Your task to perform on an android device: open a bookmark in the chrome app Image 0: 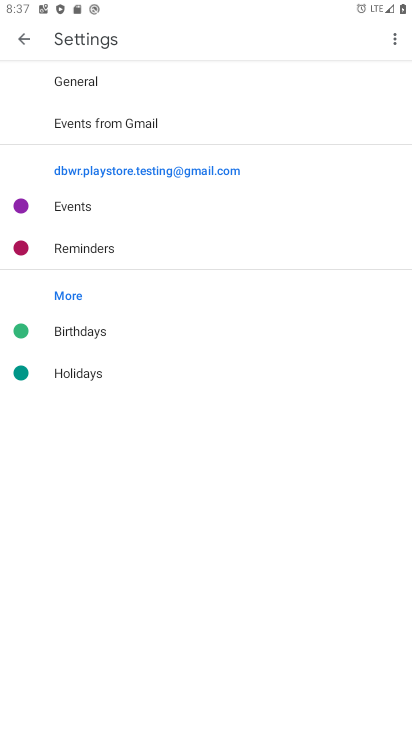
Step 0: press home button
Your task to perform on an android device: open a bookmark in the chrome app Image 1: 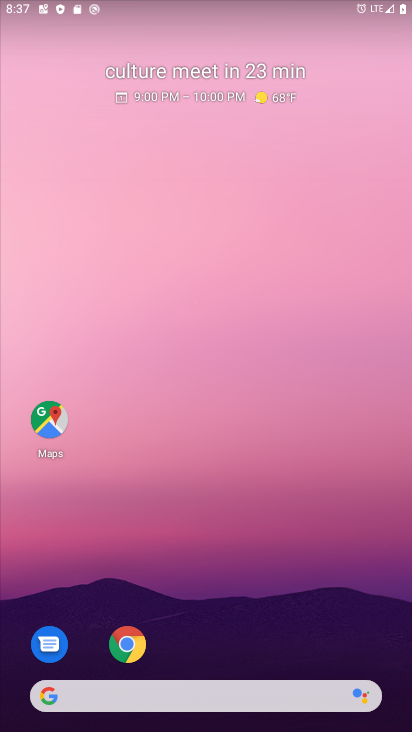
Step 1: drag from (213, 711) to (216, 275)
Your task to perform on an android device: open a bookmark in the chrome app Image 2: 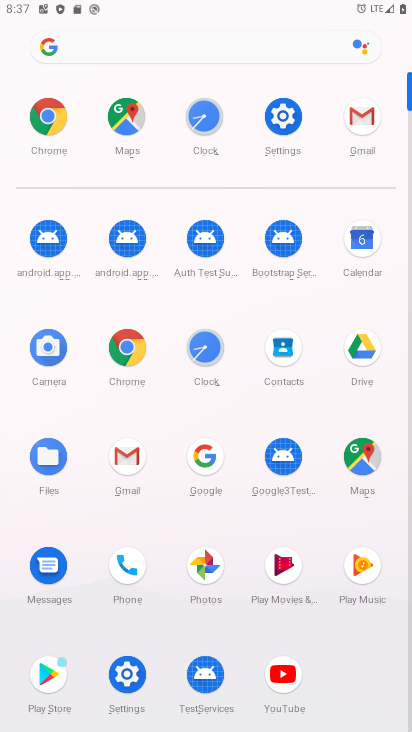
Step 2: click (51, 128)
Your task to perform on an android device: open a bookmark in the chrome app Image 3: 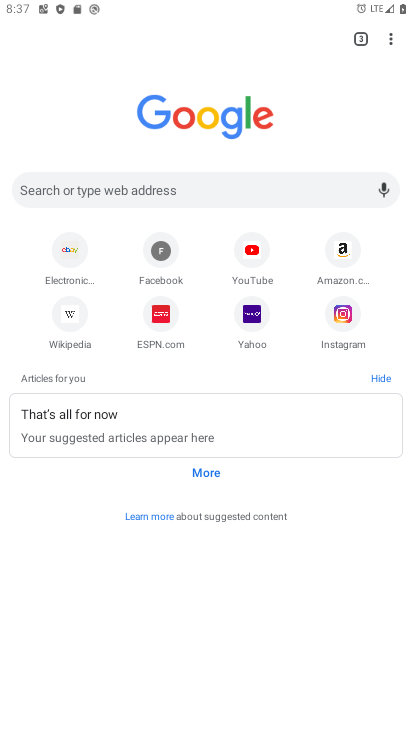
Step 3: click (381, 51)
Your task to perform on an android device: open a bookmark in the chrome app Image 4: 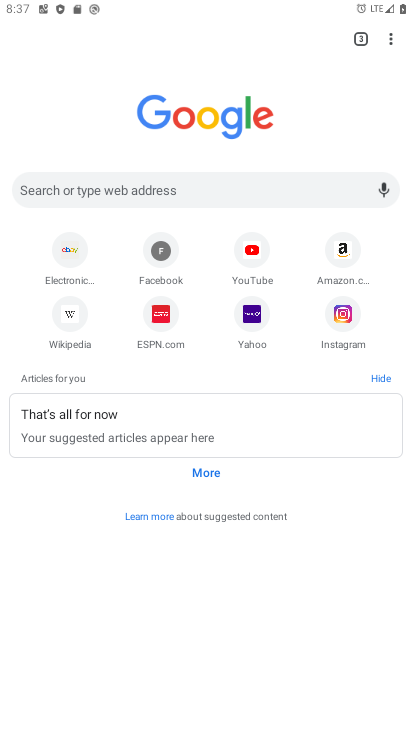
Step 4: click (377, 56)
Your task to perform on an android device: open a bookmark in the chrome app Image 5: 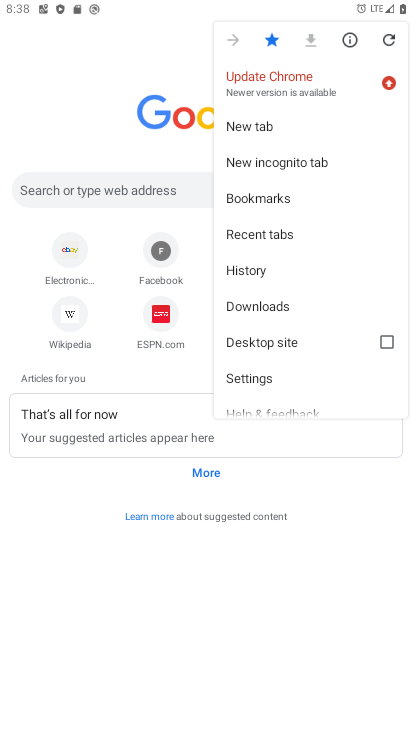
Step 5: click (268, 209)
Your task to perform on an android device: open a bookmark in the chrome app Image 6: 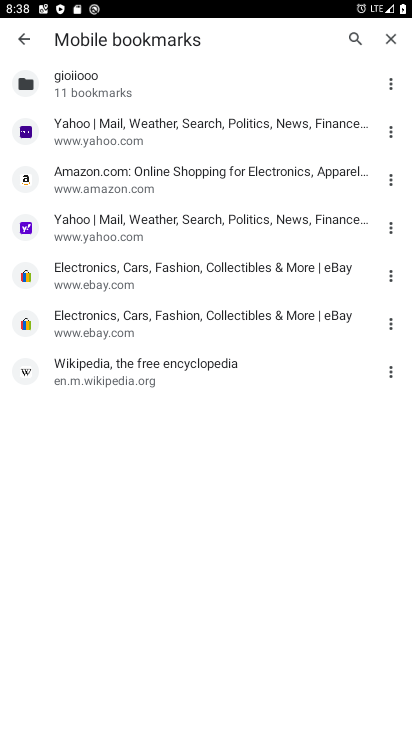
Step 6: click (154, 138)
Your task to perform on an android device: open a bookmark in the chrome app Image 7: 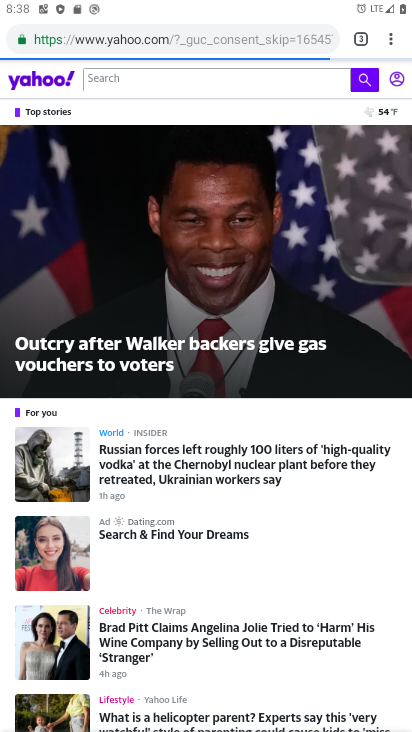
Step 7: task complete